Your task to perform on an android device: Go to sound settings Image 0: 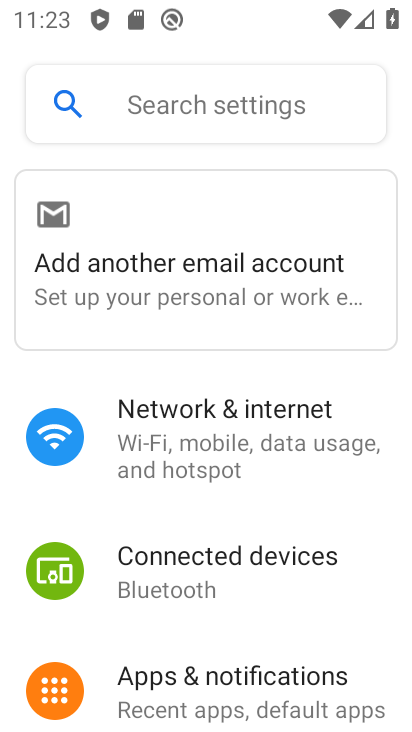
Step 0: drag from (207, 615) to (300, 191)
Your task to perform on an android device: Go to sound settings Image 1: 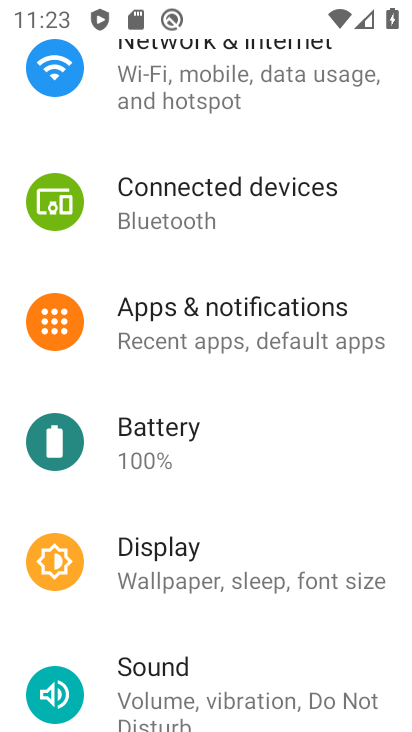
Step 1: click (147, 683)
Your task to perform on an android device: Go to sound settings Image 2: 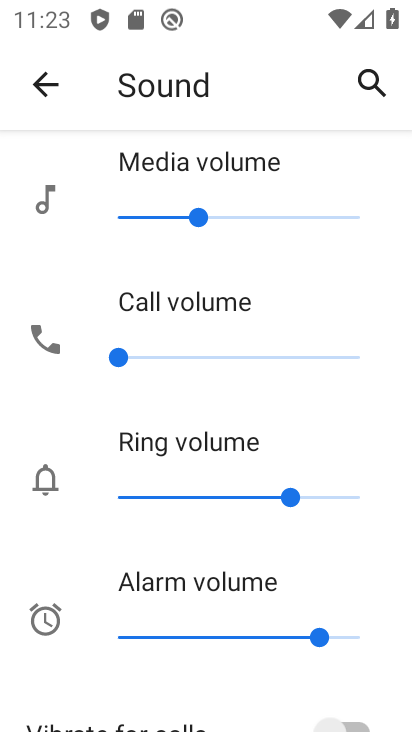
Step 2: task complete